Your task to perform on an android device: Open calendar and show me the second week of next month Image 0: 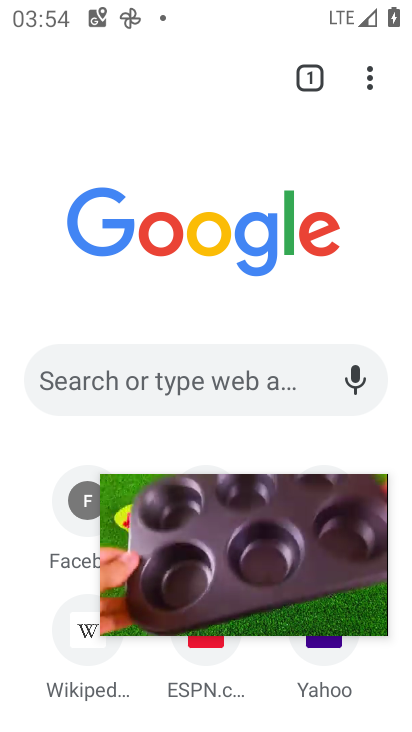
Step 0: drag from (407, 505) to (400, 216)
Your task to perform on an android device: Open calendar and show me the second week of next month Image 1: 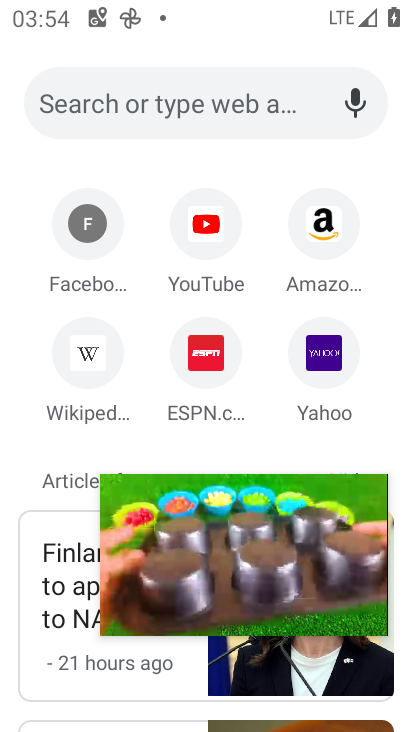
Step 1: press home button
Your task to perform on an android device: Open calendar and show me the second week of next month Image 2: 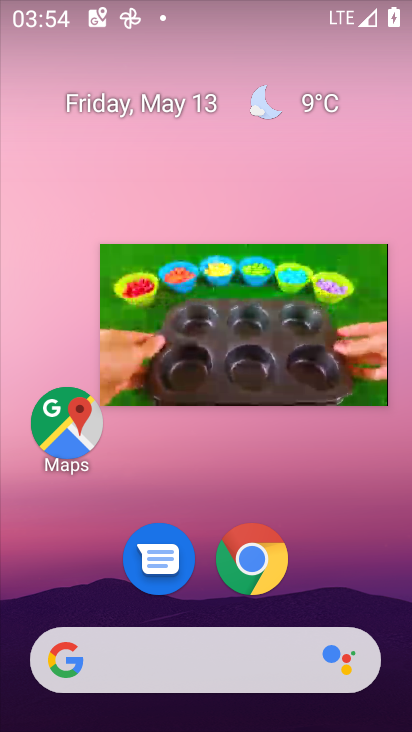
Step 2: drag from (406, 580) to (388, 369)
Your task to perform on an android device: Open calendar and show me the second week of next month Image 3: 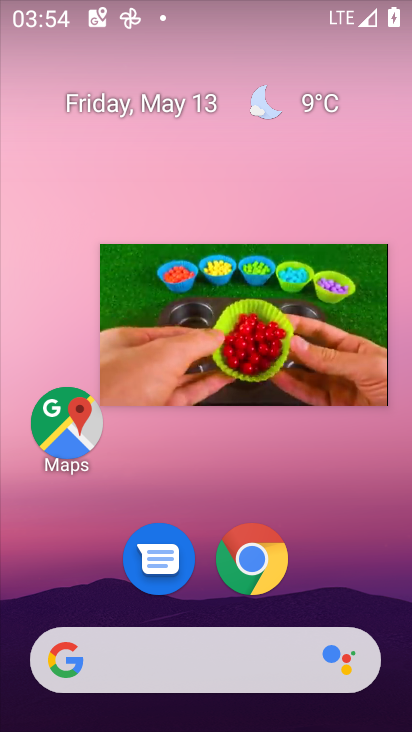
Step 3: drag from (405, 597) to (408, 158)
Your task to perform on an android device: Open calendar and show me the second week of next month Image 4: 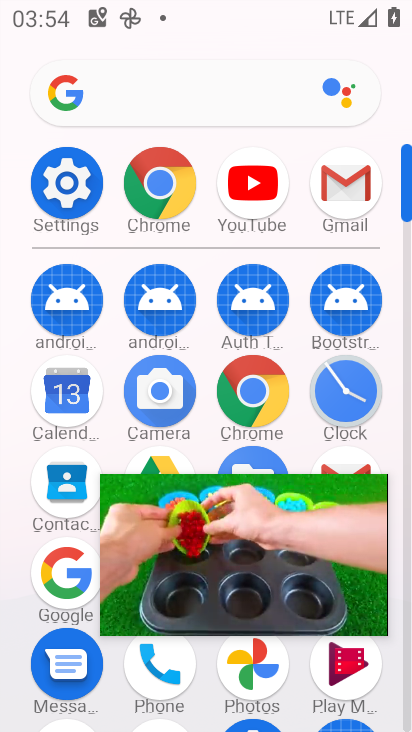
Step 4: click (69, 409)
Your task to perform on an android device: Open calendar and show me the second week of next month Image 5: 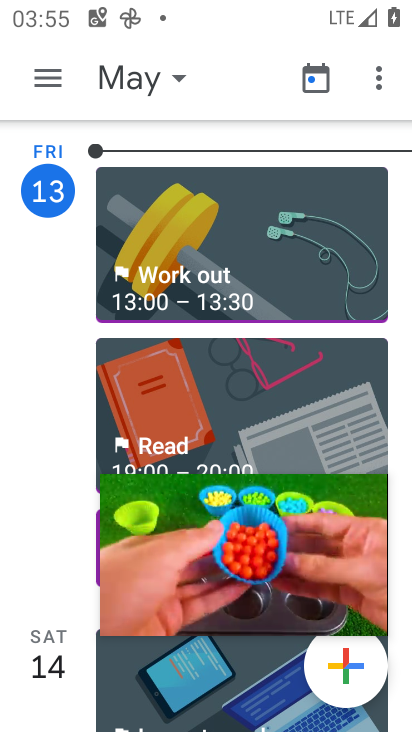
Step 5: click (174, 71)
Your task to perform on an android device: Open calendar and show me the second week of next month Image 6: 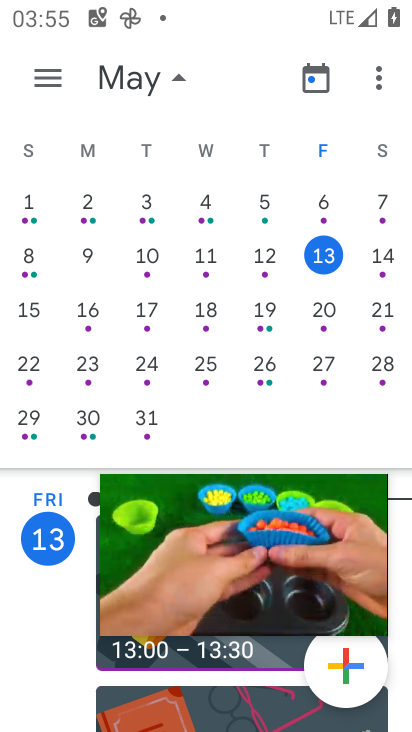
Step 6: drag from (403, 288) to (164, 261)
Your task to perform on an android device: Open calendar and show me the second week of next month Image 7: 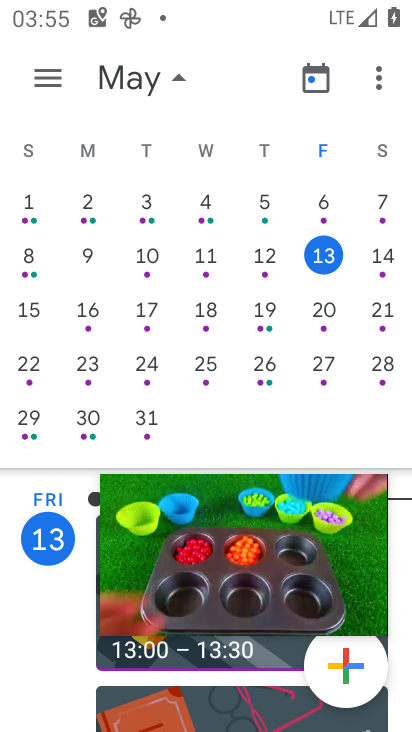
Step 7: drag from (401, 278) to (152, 263)
Your task to perform on an android device: Open calendar and show me the second week of next month Image 8: 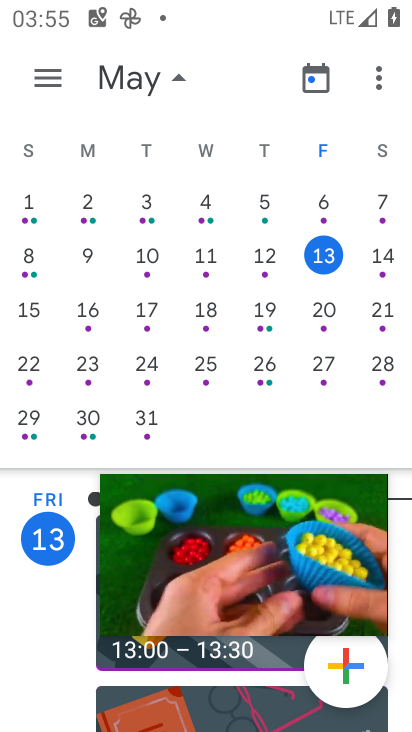
Step 8: drag from (400, 288) to (10, 255)
Your task to perform on an android device: Open calendar and show me the second week of next month Image 9: 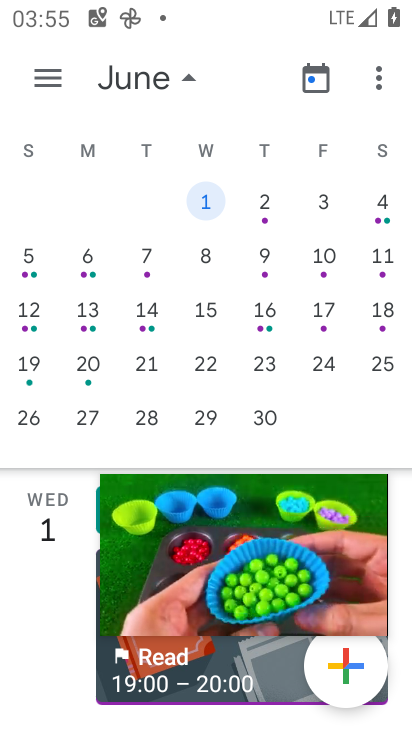
Step 9: click (261, 251)
Your task to perform on an android device: Open calendar and show me the second week of next month Image 10: 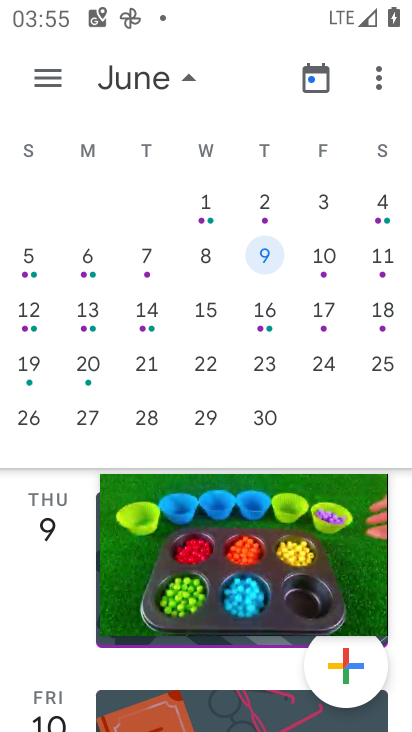
Step 10: task complete